Your task to perform on an android device: change the upload size in google photos Image 0: 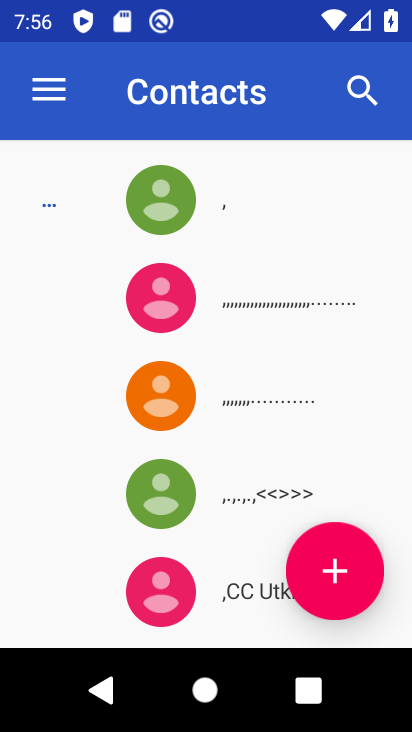
Step 0: press home button
Your task to perform on an android device: change the upload size in google photos Image 1: 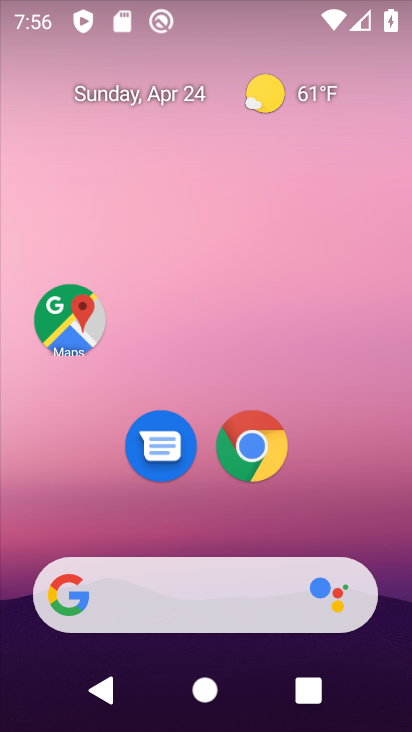
Step 1: drag from (209, 496) to (205, 145)
Your task to perform on an android device: change the upload size in google photos Image 2: 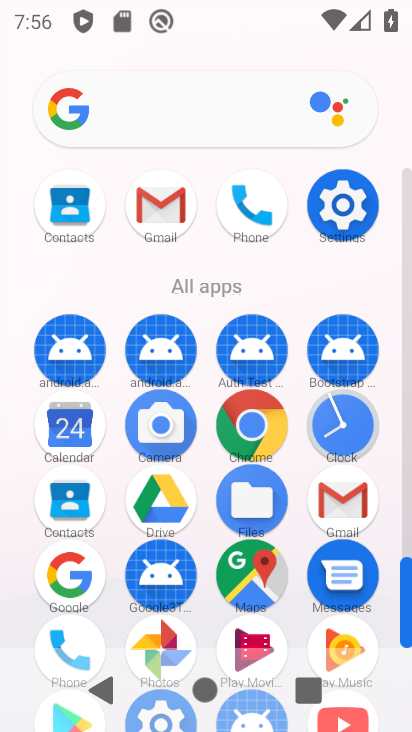
Step 2: drag from (268, 484) to (274, 213)
Your task to perform on an android device: change the upload size in google photos Image 3: 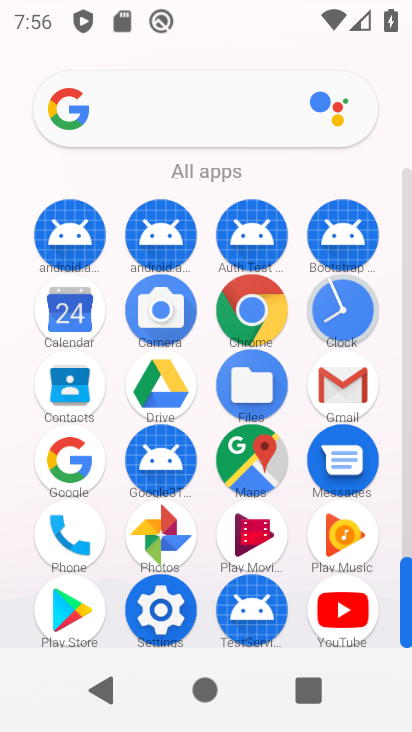
Step 3: click (159, 542)
Your task to perform on an android device: change the upload size in google photos Image 4: 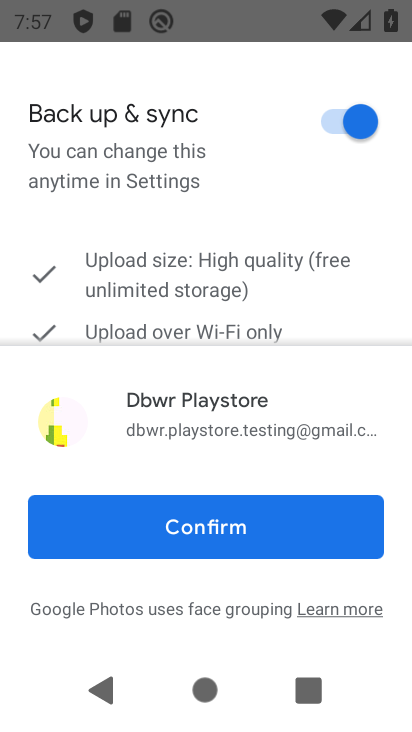
Step 4: click (181, 535)
Your task to perform on an android device: change the upload size in google photos Image 5: 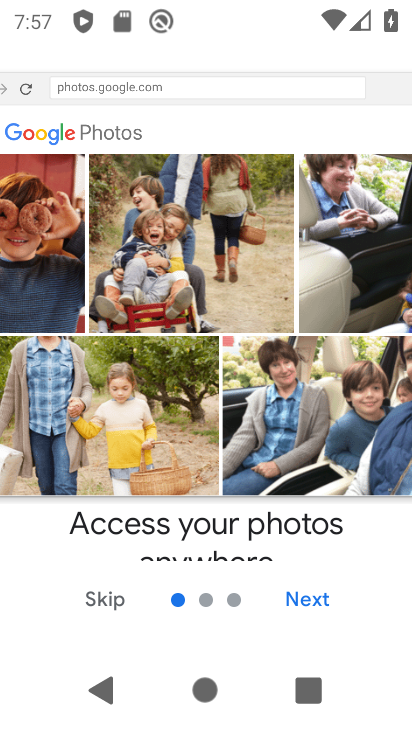
Step 5: click (304, 595)
Your task to perform on an android device: change the upload size in google photos Image 6: 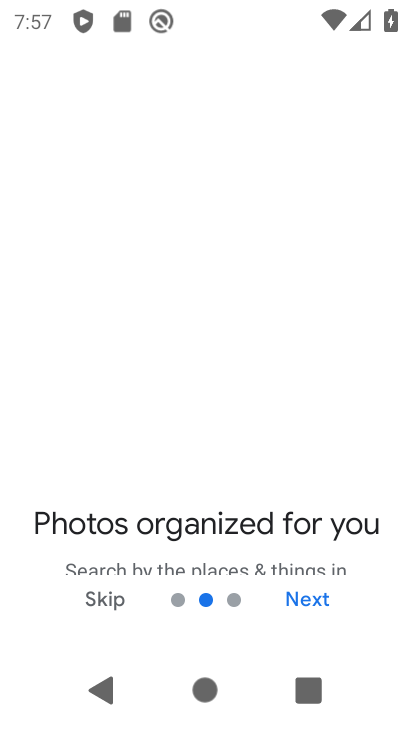
Step 6: click (293, 608)
Your task to perform on an android device: change the upload size in google photos Image 7: 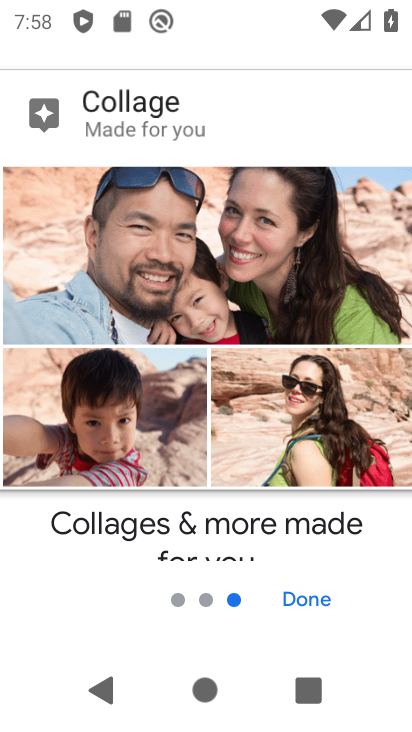
Step 7: click (305, 604)
Your task to perform on an android device: change the upload size in google photos Image 8: 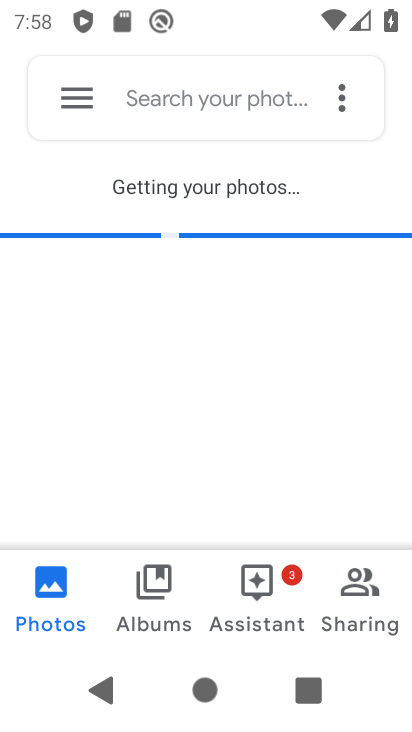
Step 8: click (73, 97)
Your task to perform on an android device: change the upload size in google photos Image 9: 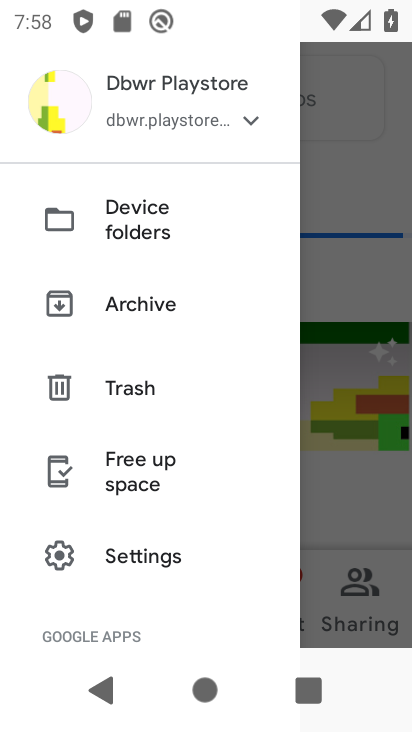
Step 9: click (138, 544)
Your task to perform on an android device: change the upload size in google photos Image 10: 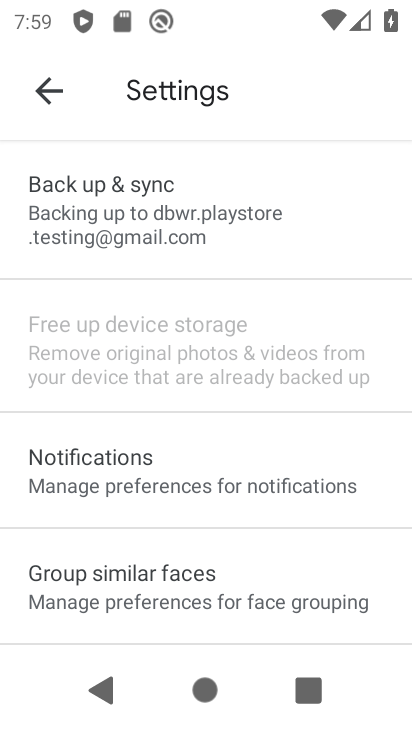
Step 10: click (193, 224)
Your task to perform on an android device: change the upload size in google photos Image 11: 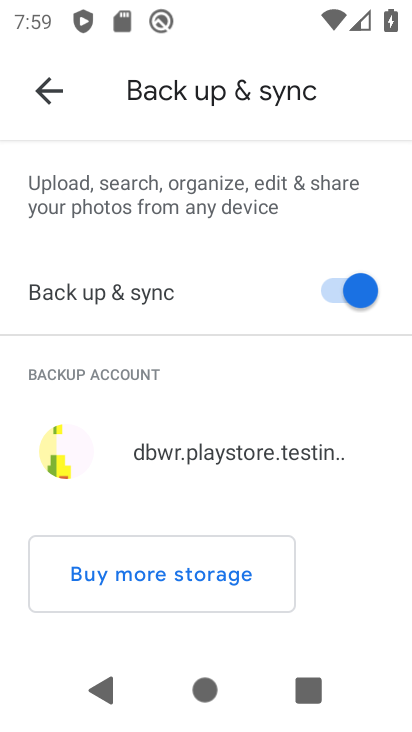
Step 11: drag from (110, 359) to (102, 180)
Your task to perform on an android device: change the upload size in google photos Image 12: 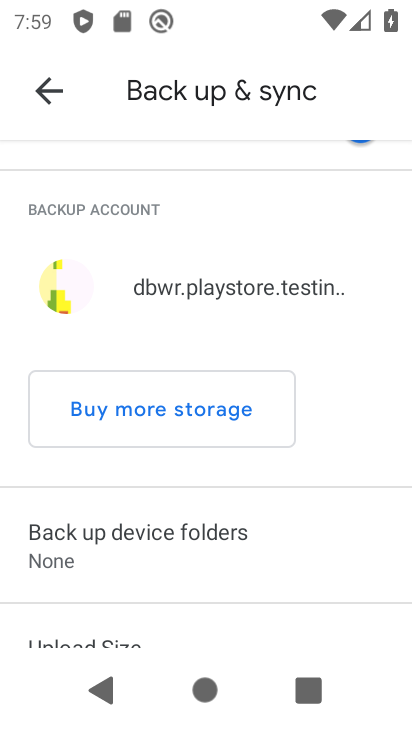
Step 12: drag from (269, 462) to (271, 263)
Your task to perform on an android device: change the upload size in google photos Image 13: 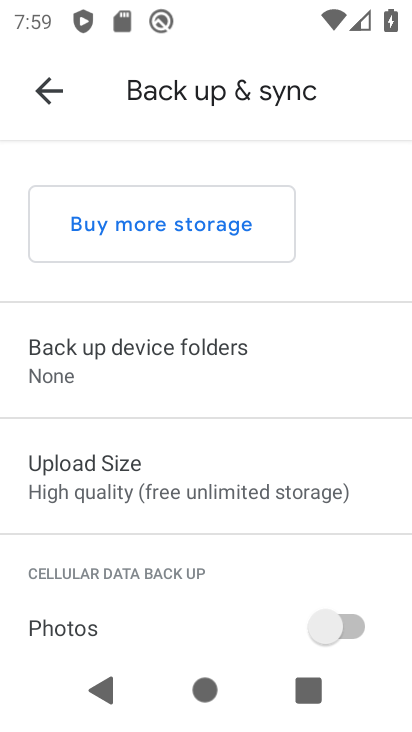
Step 13: click (215, 483)
Your task to perform on an android device: change the upload size in google photos Image 14: 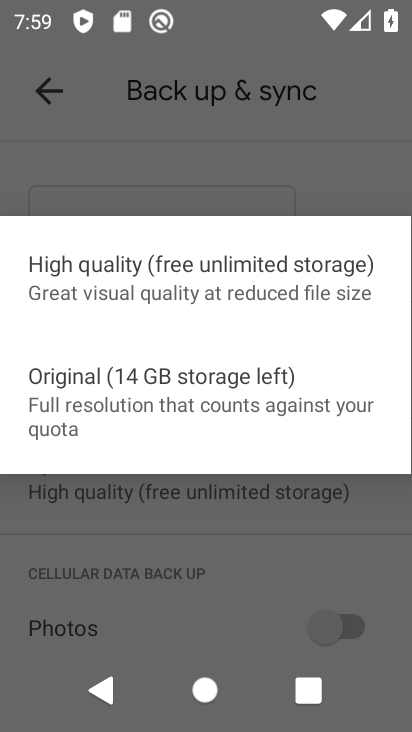
Step 14: click (179, 414)
Your task to perform on an android device: change the upload size in google photos Image 15: 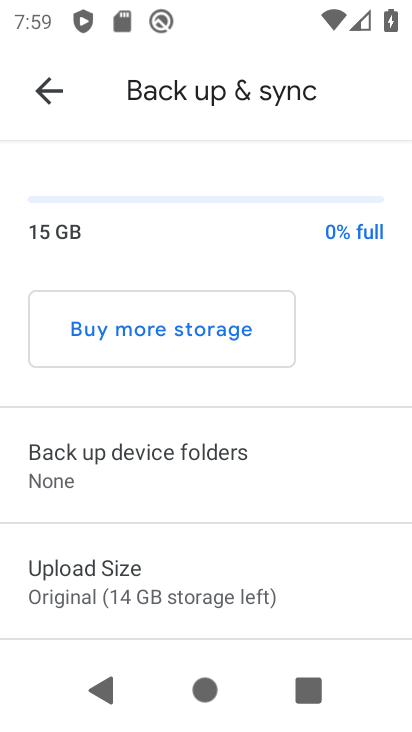
Step 15: task complete